Your task to perform on an android device: Go to Google maps Image 0: 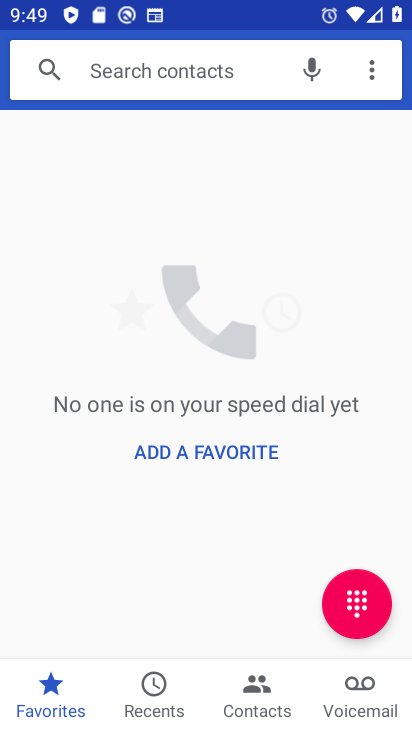
Step 0: press home button
Your task to perform on an android device: Go to Google maps Image 1: 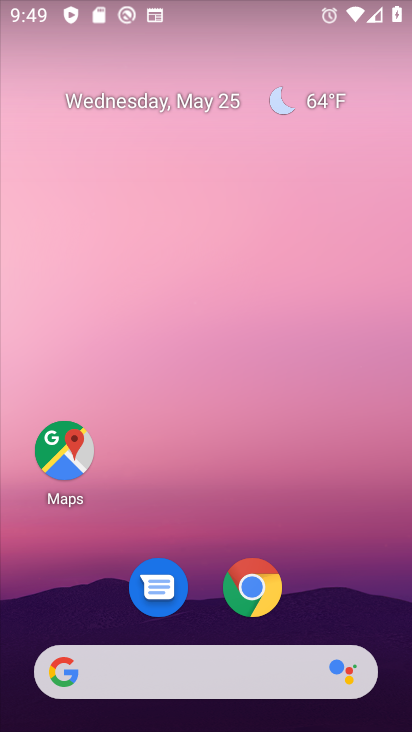
Step 1: click (68, 456)
Your task to perform on an android device: Go to Google maps Image 2: 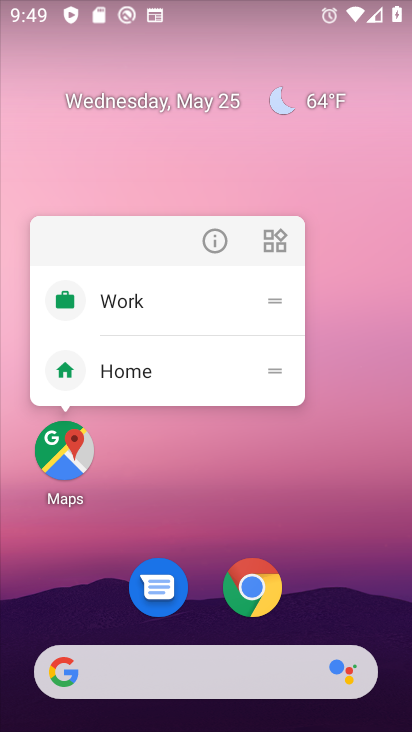
Step 2: click (68, 456)
Your task to perform on an android device: Go to Google maps Image 3: 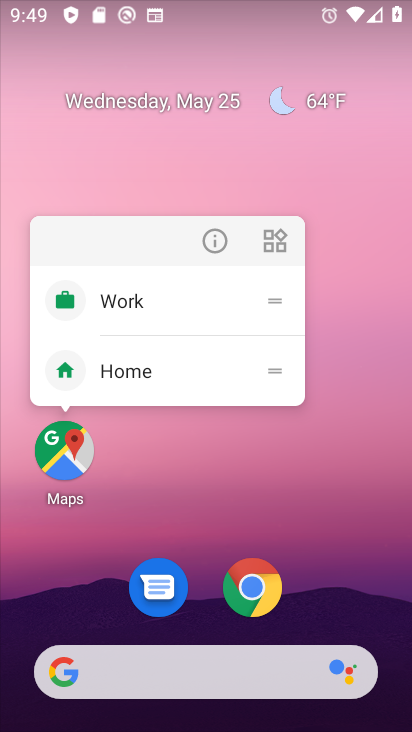
Step 3: click (68, 460)
Your task to perform on an android device: Go to Google maps Image 4: 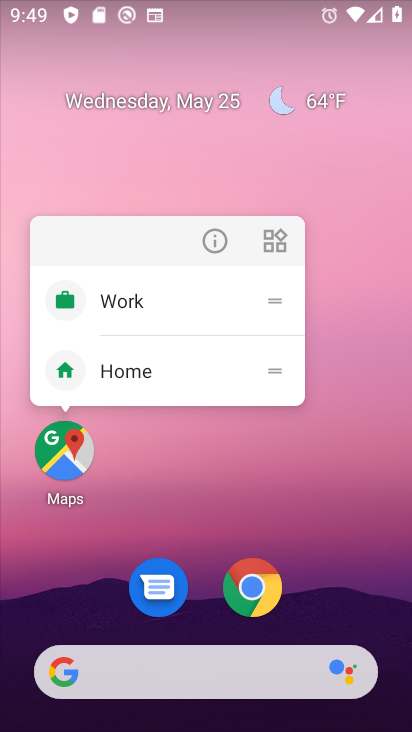
Step 4: click (63, 487)
Your task to perform on an android device: Go to Google maps Image 5: 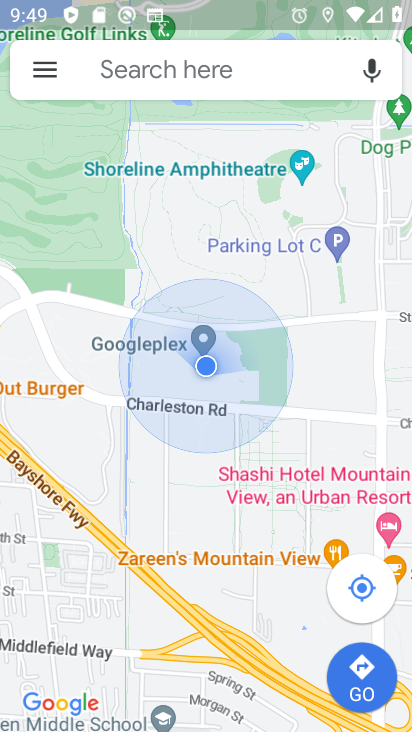
Step 5: task complete